Your task to perform on an android device: open sync settings in chrome Image 0: 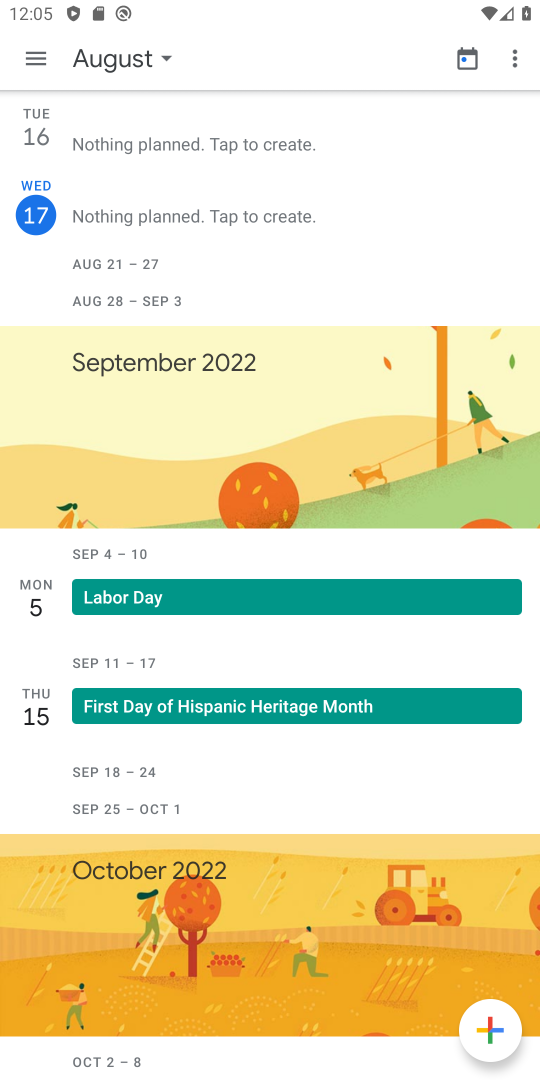
Step 0: press home button
Your task to perform on an android device: open sync settings in chrome Image 1: 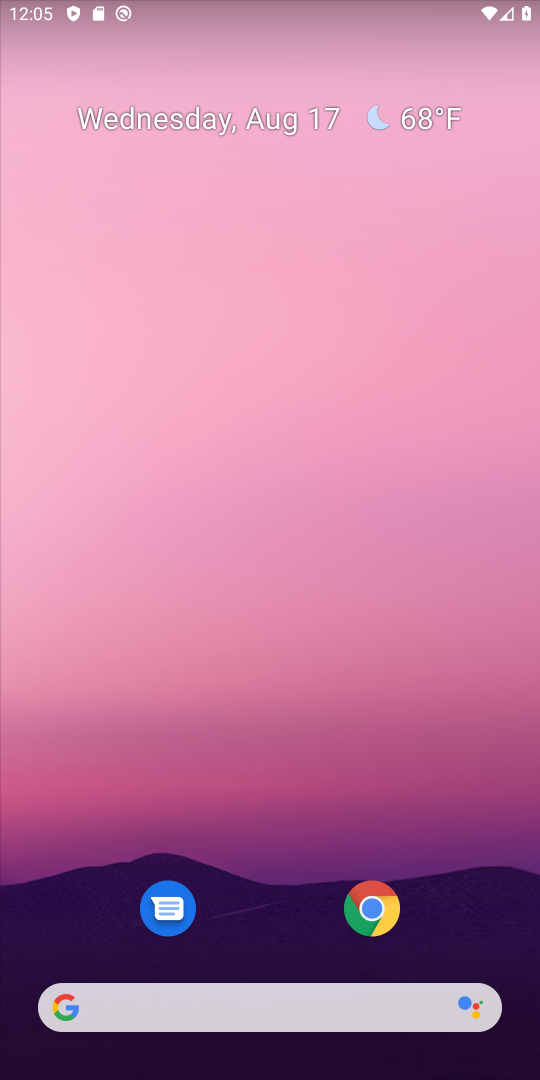
Step 1: click (352, 910)
Your task to perform on an android device: open sync settings in chrome Image 2: 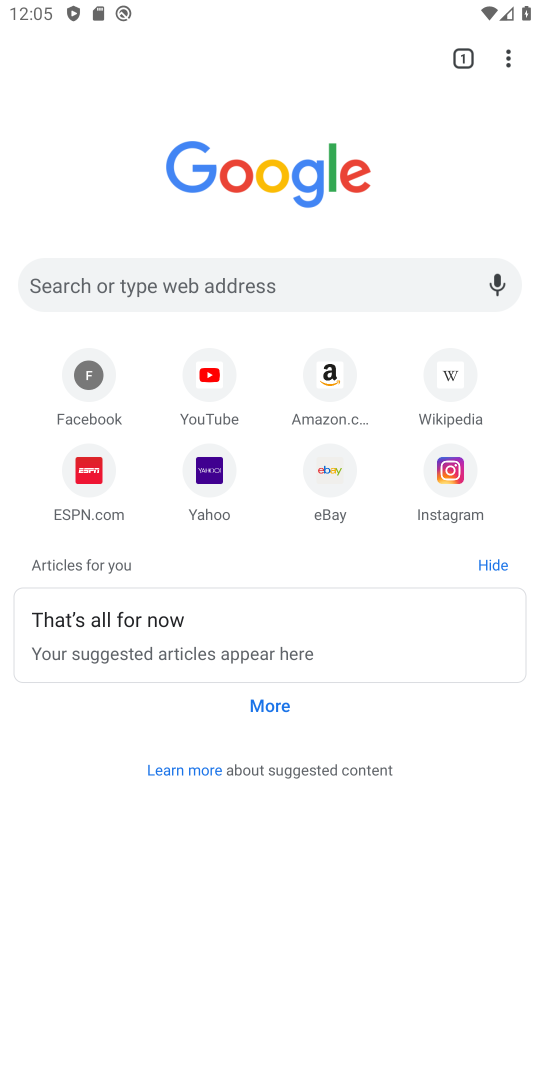
Step 2: click (506, 57)
Your task to perform on an android device: open sync settings in chrome Image 3: 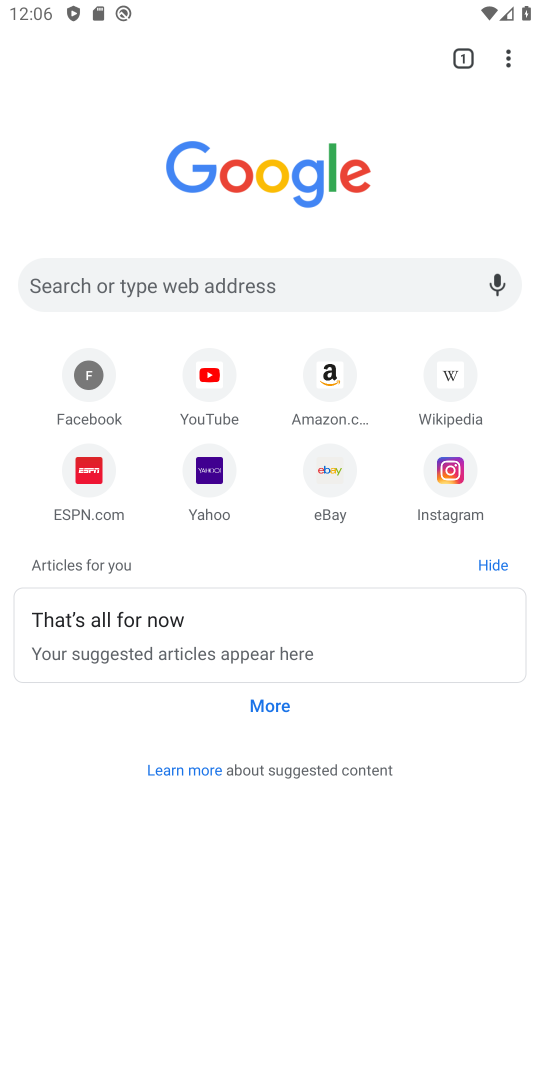
Step 3: click (504, 65)
Your task to perform on an android device: open sync settings in chrome Image 4: 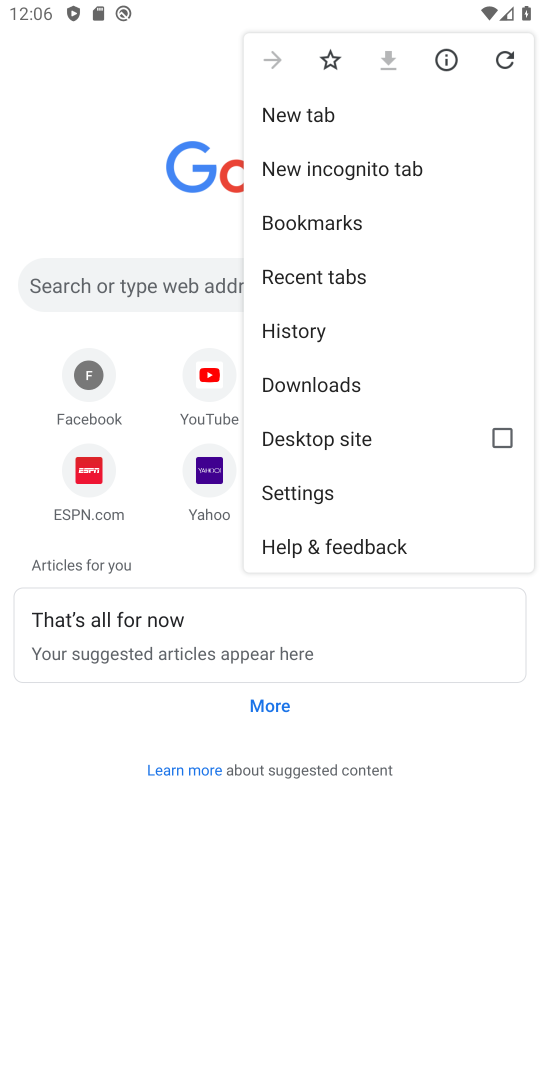
Step 4: click (314, 488)
Your task to perform on an android device: open sync settings in chrome Image 5: 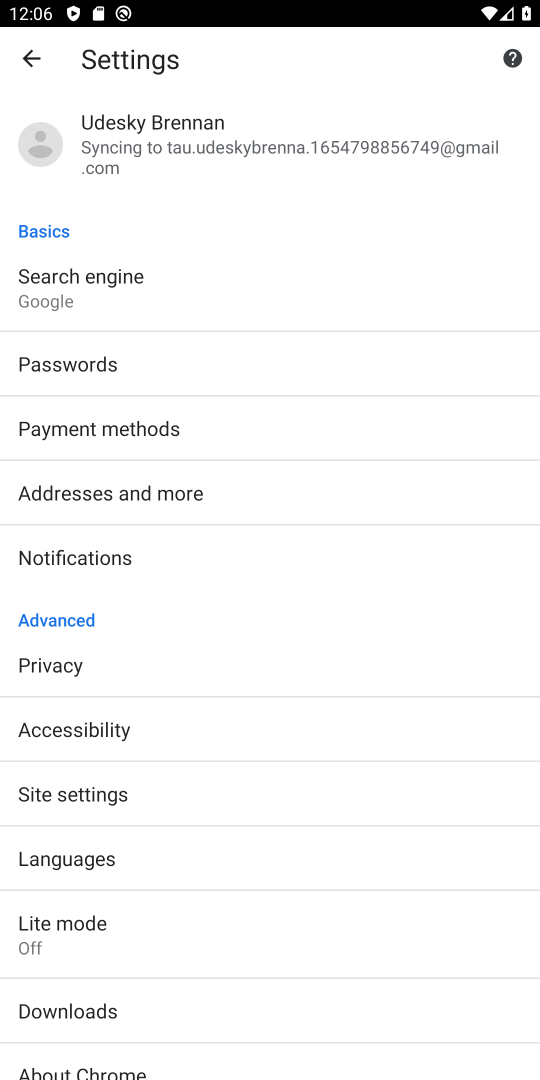
Step 5: click (217, 156)
Your task to perform on an android device: open sync settings in chrome Image 6: 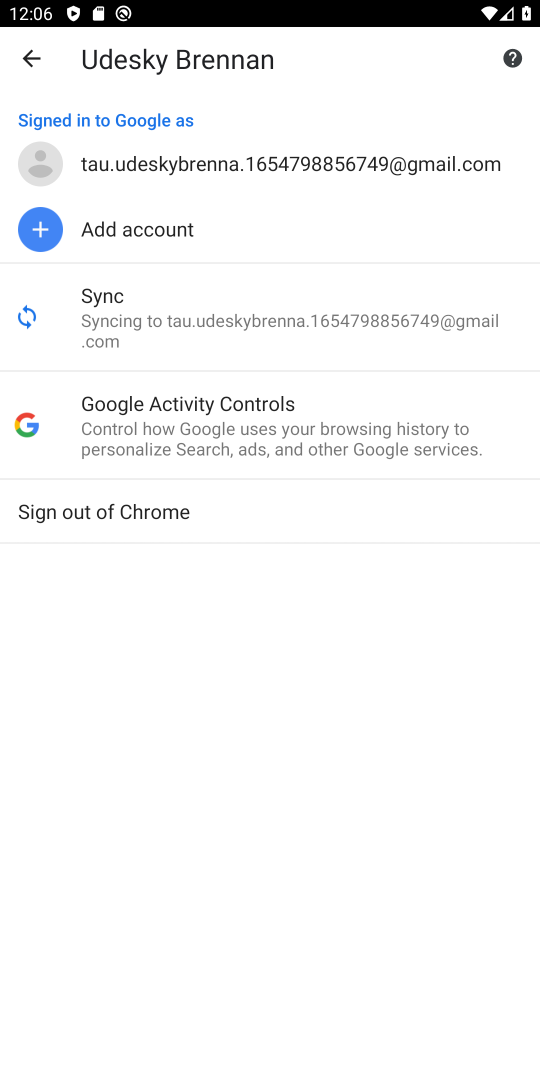
Step 6: click (172, 298)
Your task to perform on an android device: open sync settings in chrome Image 7: 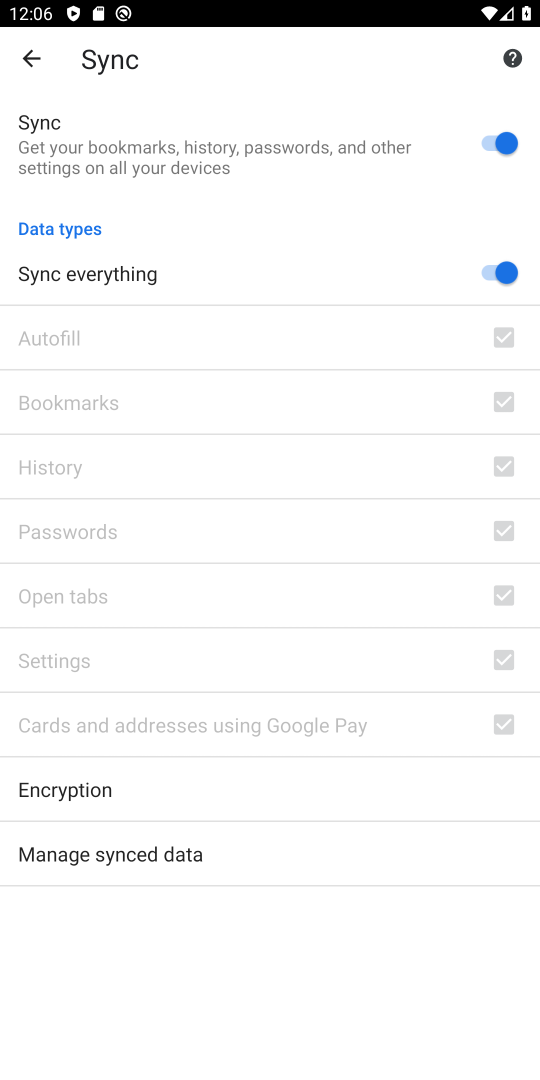
Step 7: task complete